Your task to perform on an android device: Open the phone app and click the voicemail tab. Image 0: 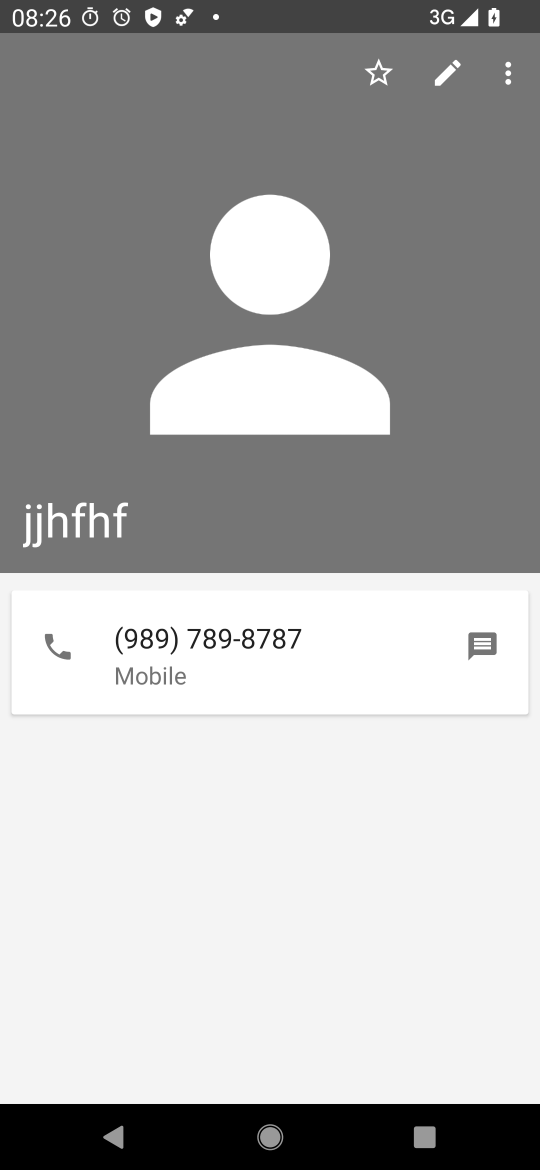
Step 0: press home button
Your task to perform on an android device: Open the phone app and click the voicemail tab. Image 1: 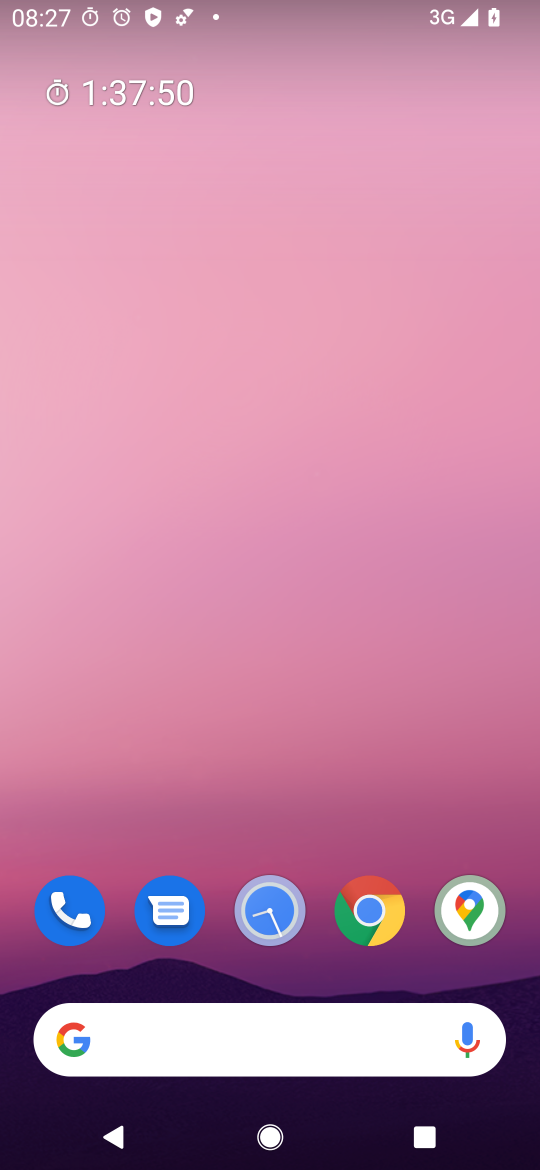
Step 1: drag from (189, 1030) to (385, 134)
Your task to perform on an android device: Open the phone app and click the voicemail tab. Image 2: 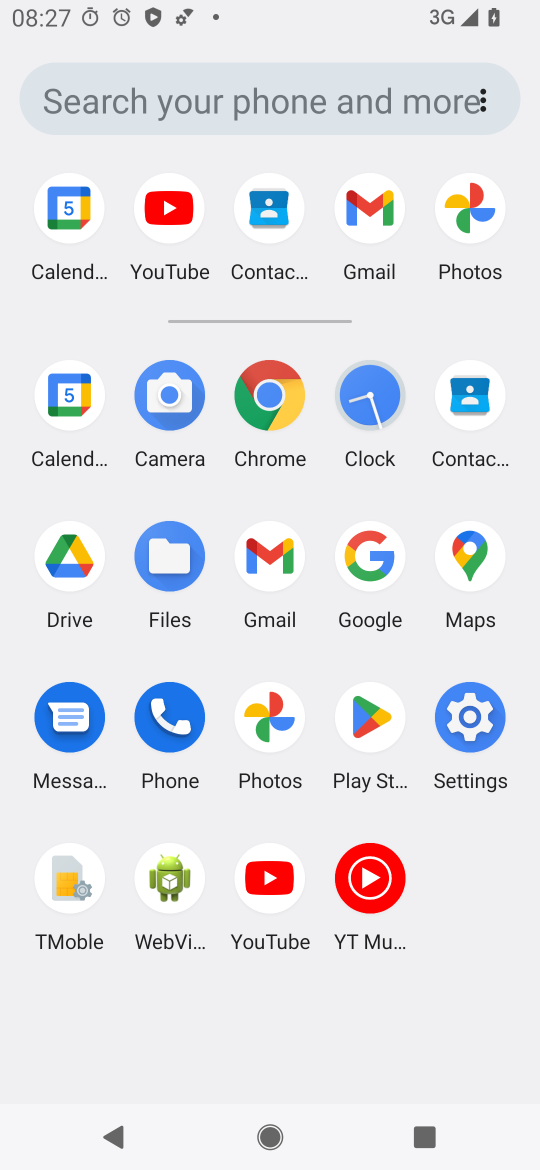
Step 2: click (178, 698)
Your task to perform on an android device: Open the phone app and click the voicemail tab. Image 3: 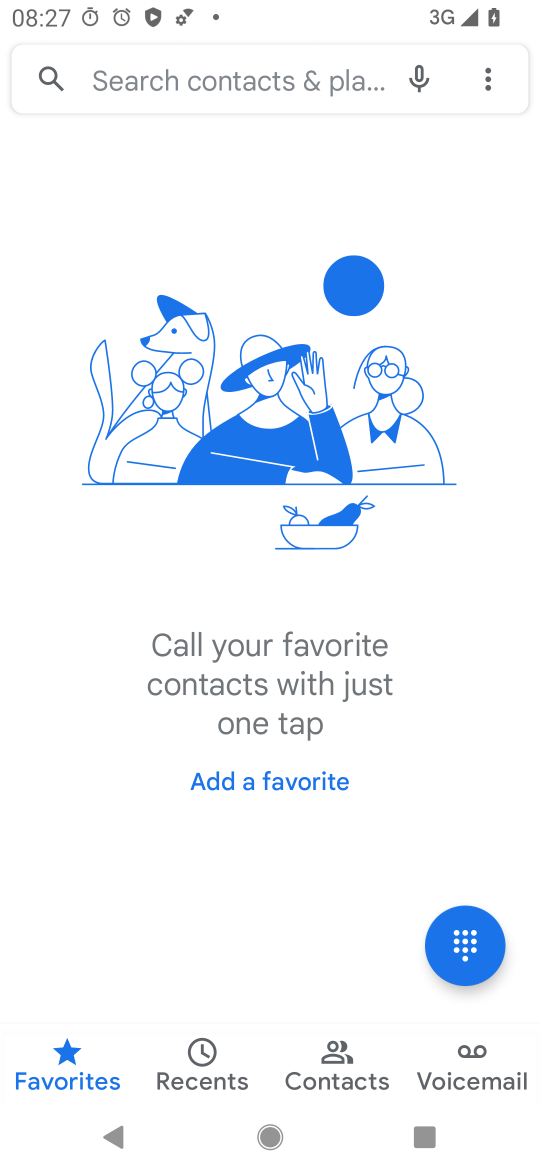
Step 3: click (482, 1074)
Your task to perform on an android device: Open the phone app and click the voicemail tab. Image 4: 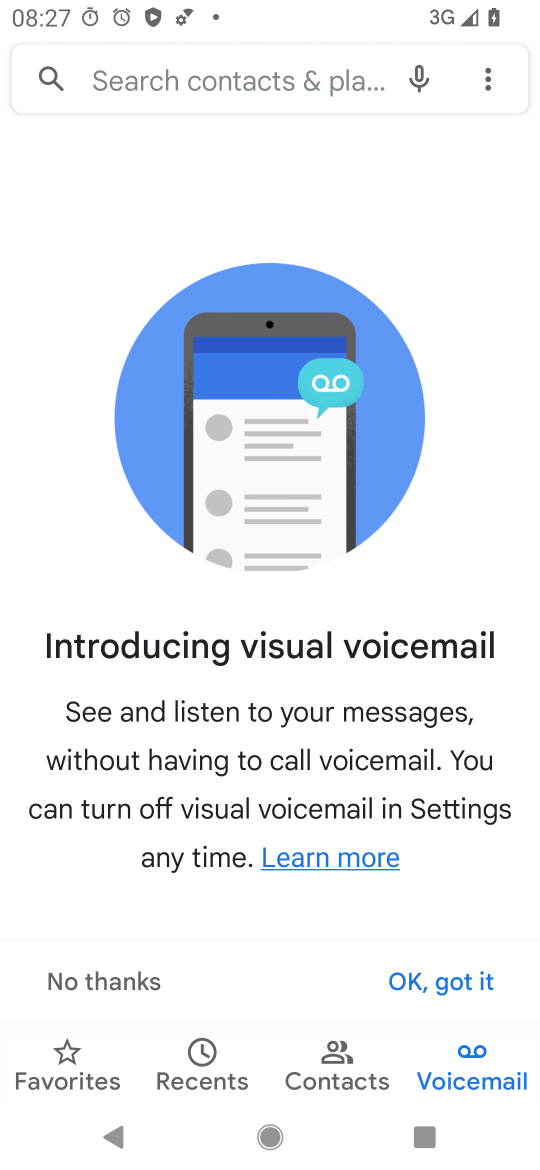
Step 4: task complete